Your task to perform on an android device: Is it going to rain today? Image 0: 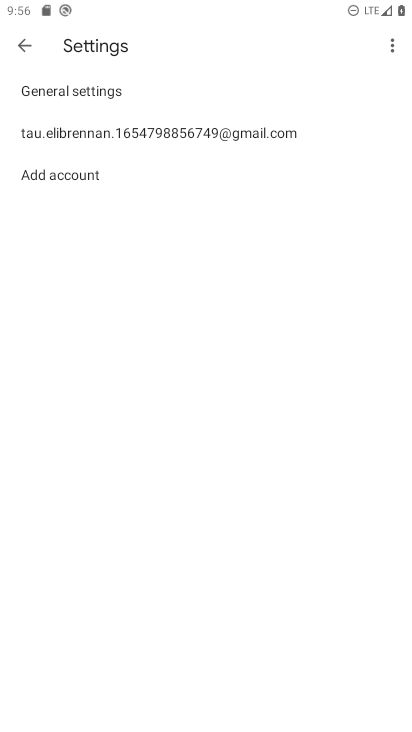
Step 0: press home button
Your task to perform on an android device: Is it going to rain today? Image 1: 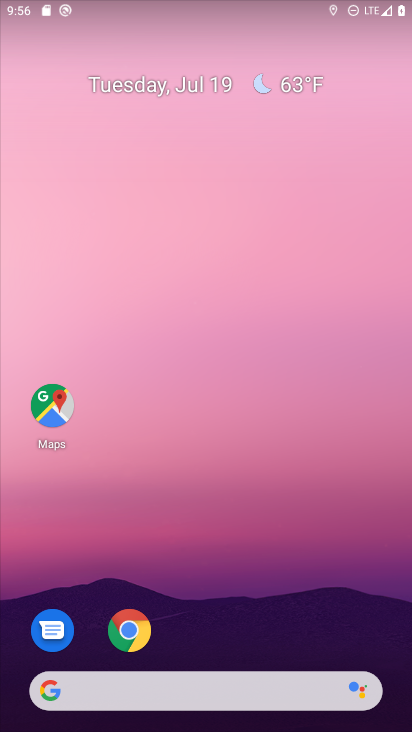
Step 1: drag from (166, 692) to (265, 105)
Your task to perform on an android device: Is it going to rain today? Image 2: 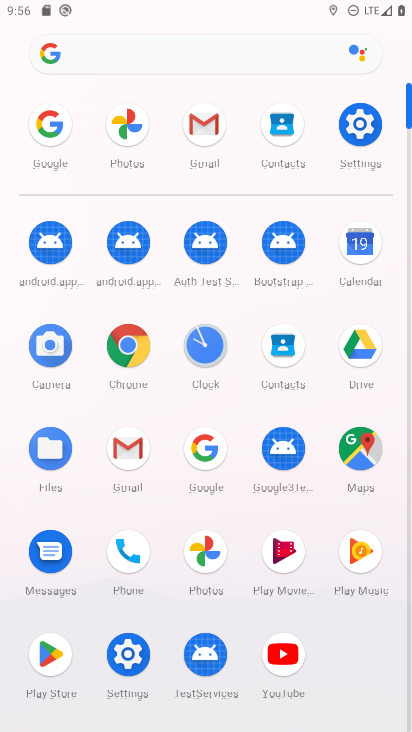
Step 2: click (202, 446)
Your task to perform on an android device: Is it going to rain today? Image 3: 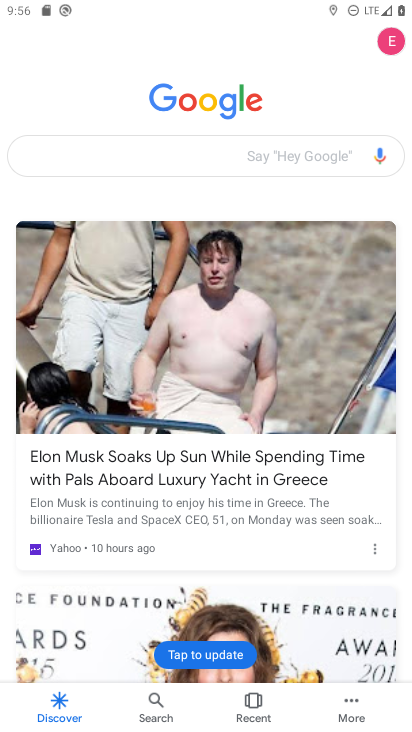
Step 3: click (258, 157)
Your task to perform on an android device: Is it going to rain today? Image 4: 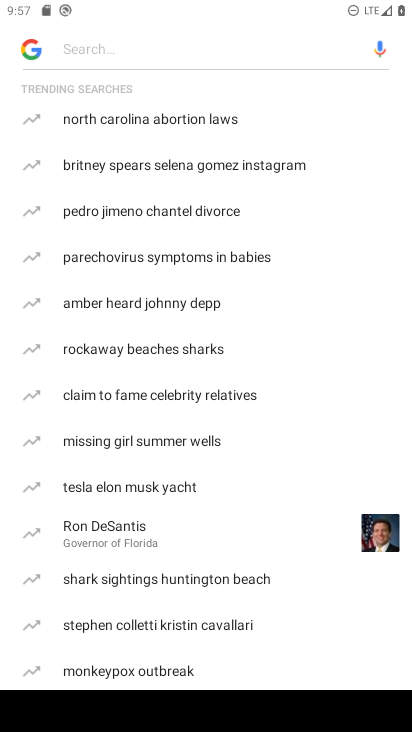
Step 4: type "Is it going to rain today?"
Your task to perform on an android device: Is it going to rain today? Image 5: 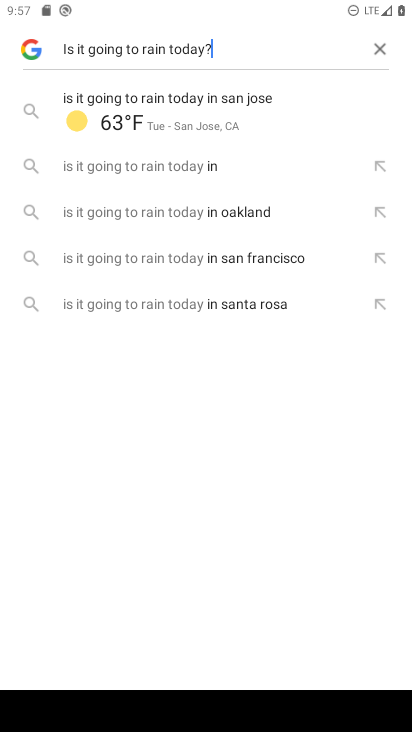
Step 5: click (209, 129)
Your task to perform on an android device: Is it going to rain today? Image 6: 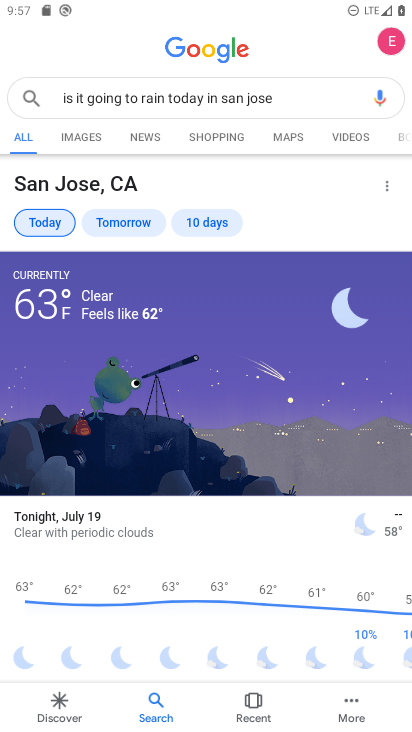
Step 6: task complete